Your task to perform on an android device: Clear the cart on bestbuy.com. Add "jbl charge 4" to the cart on bestbuy.com, then select checkout. Image 0: 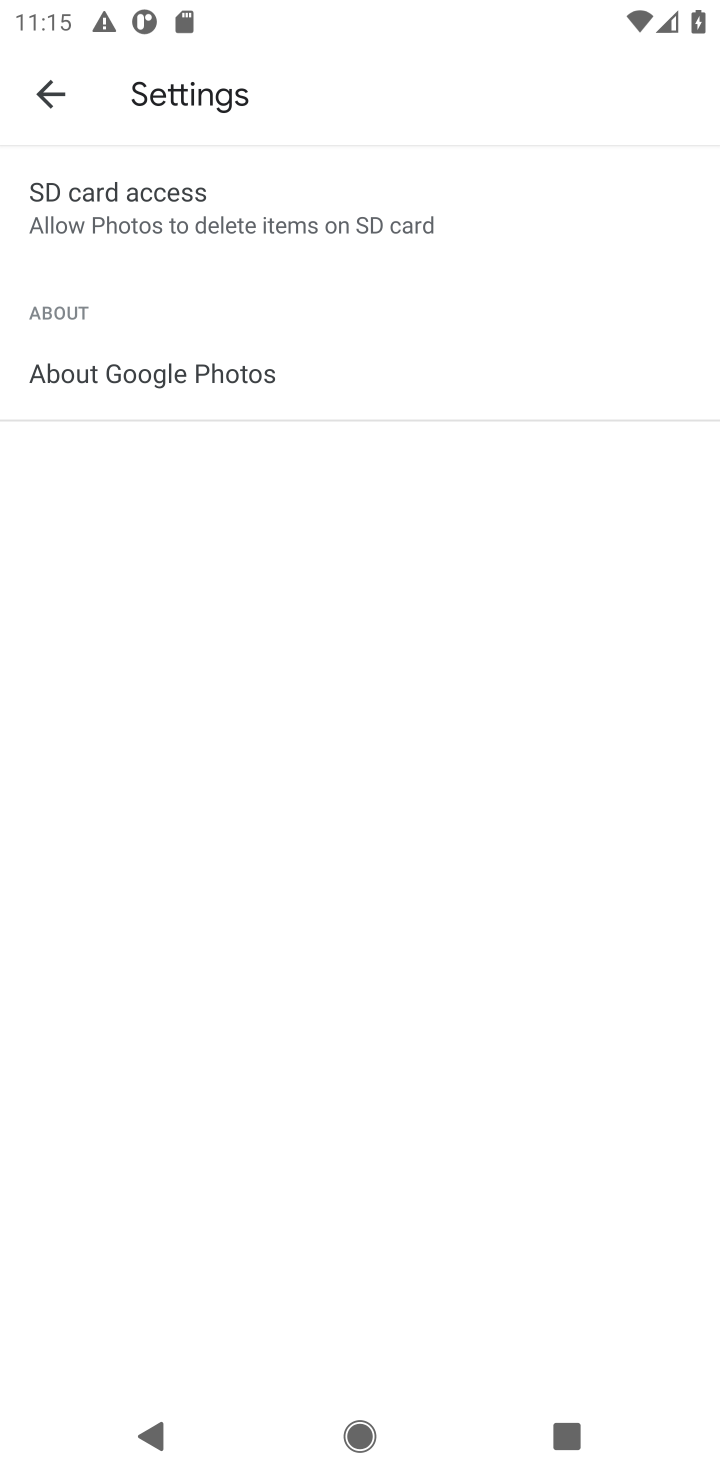
Step 0: press home button
Your task to perform on an android device: Clear the cart on bestbuy.com. Add "jbl charge 4" to the cart on bestbuy.com, then select checkout. Image 1: 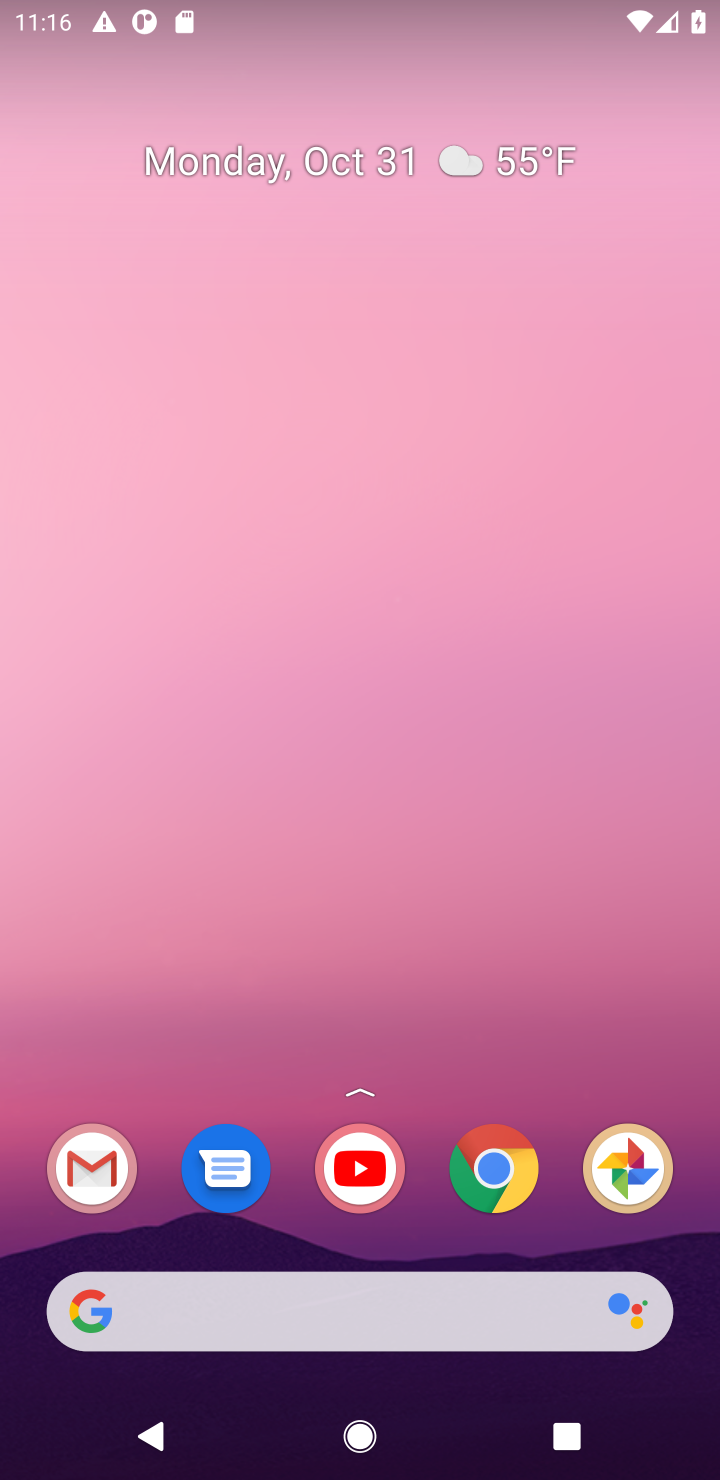
Step 1: click (492, 1175)
Your task to perform on an android device: Clear the cart on bestbuy.com. Add "jbl charge 4" to the cart on bestbuy.com, then select checkout. Image 2: 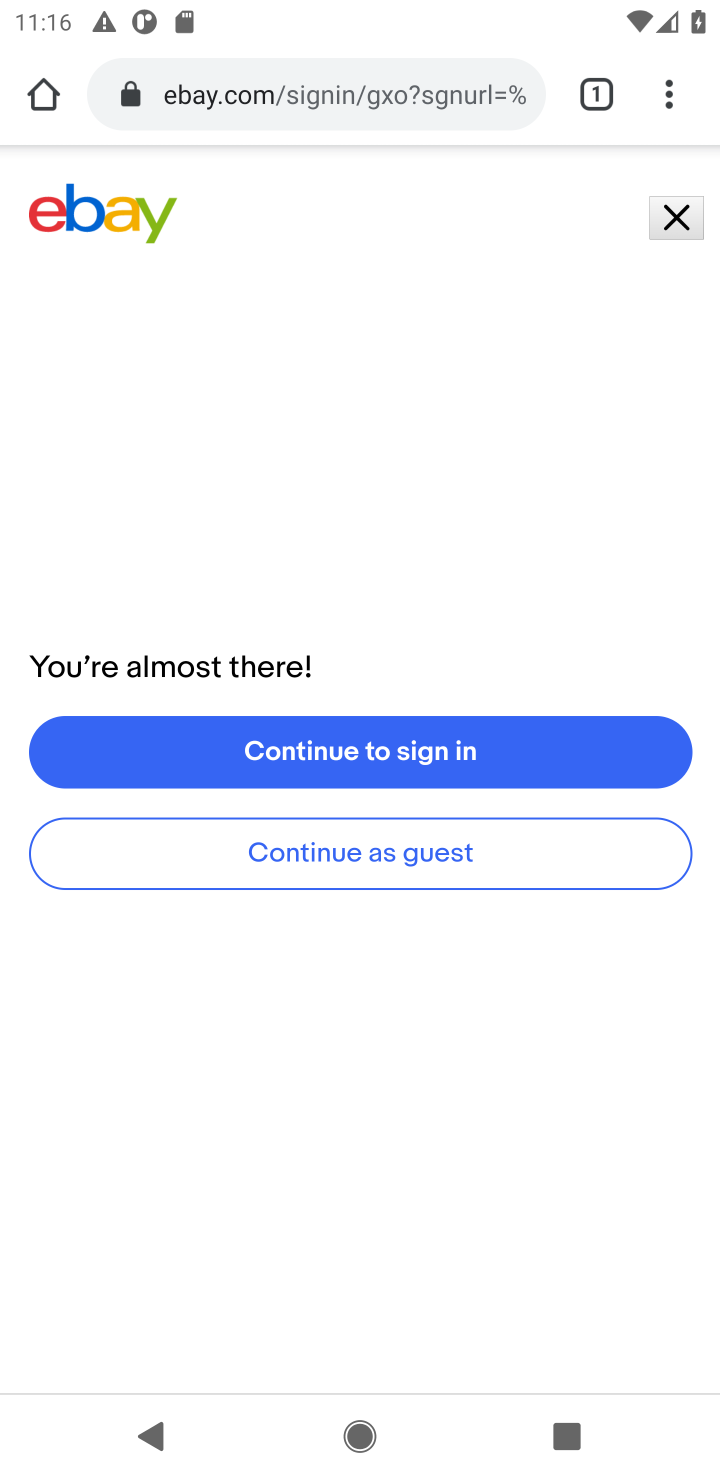
Step 2: click (354, 98)
Your task to perform on an android device: Clear the cart on bestbuy.com. Add "jbl charge 4" to the cart on bestbuy.com, then select checkout. Image 3: 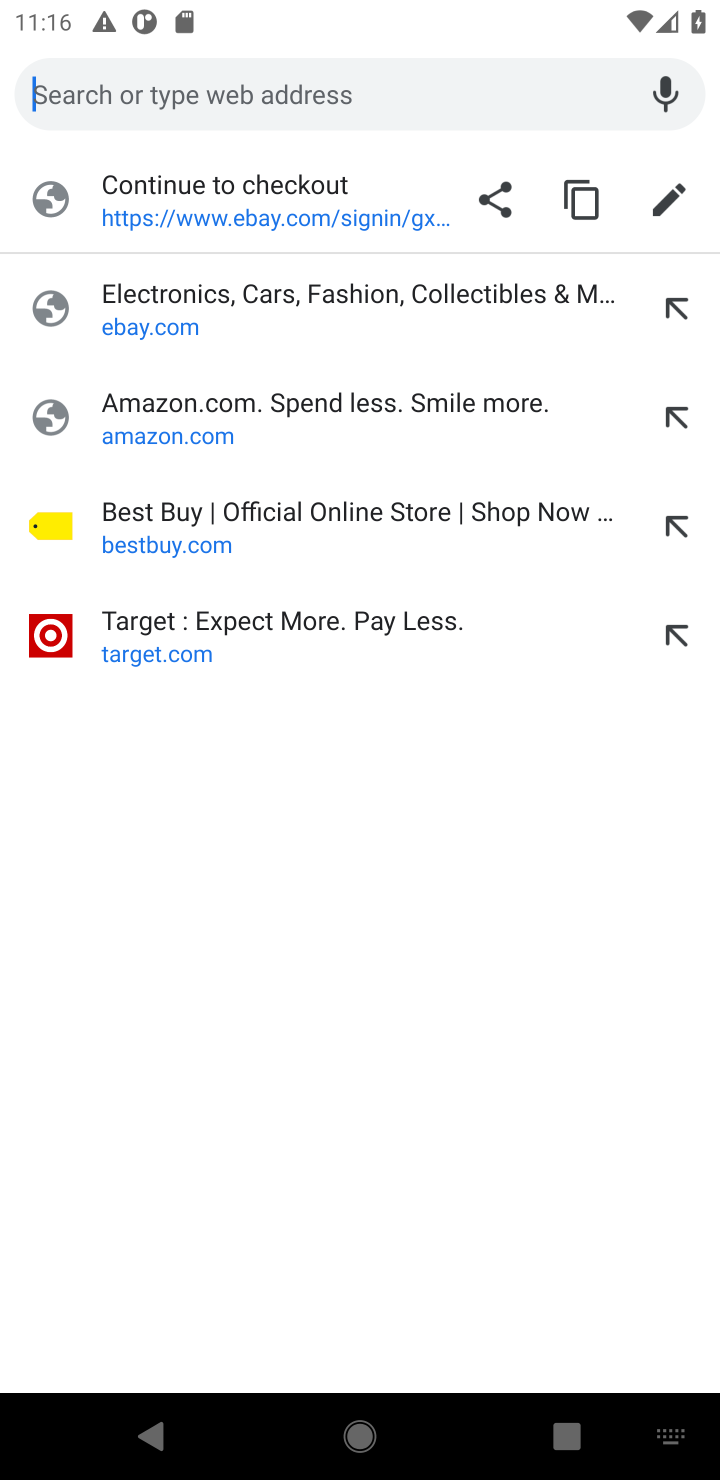
Step 3: type "bestbuy.com"
Your task to perform on an android device: Clear the cart on bestbuy.com. Add "jbl charge 4" to the cart on bestbuy.com, then select checkout. Image 4: 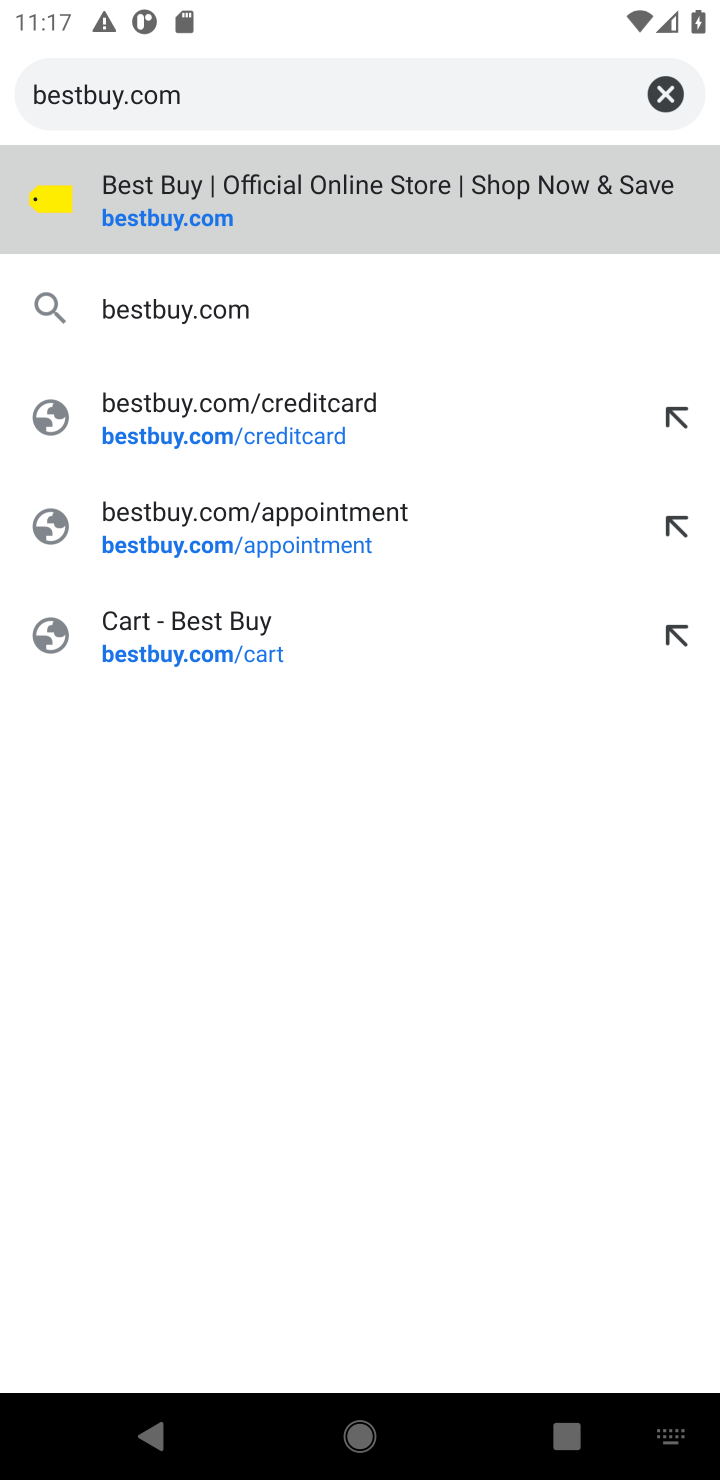
Step 4: press enter
Your task to perform on an android device: Clear the cart on bestbuy.com. Add "jbl charge 4" to the cart on bestbuy.com, then select checkout. Image 5: 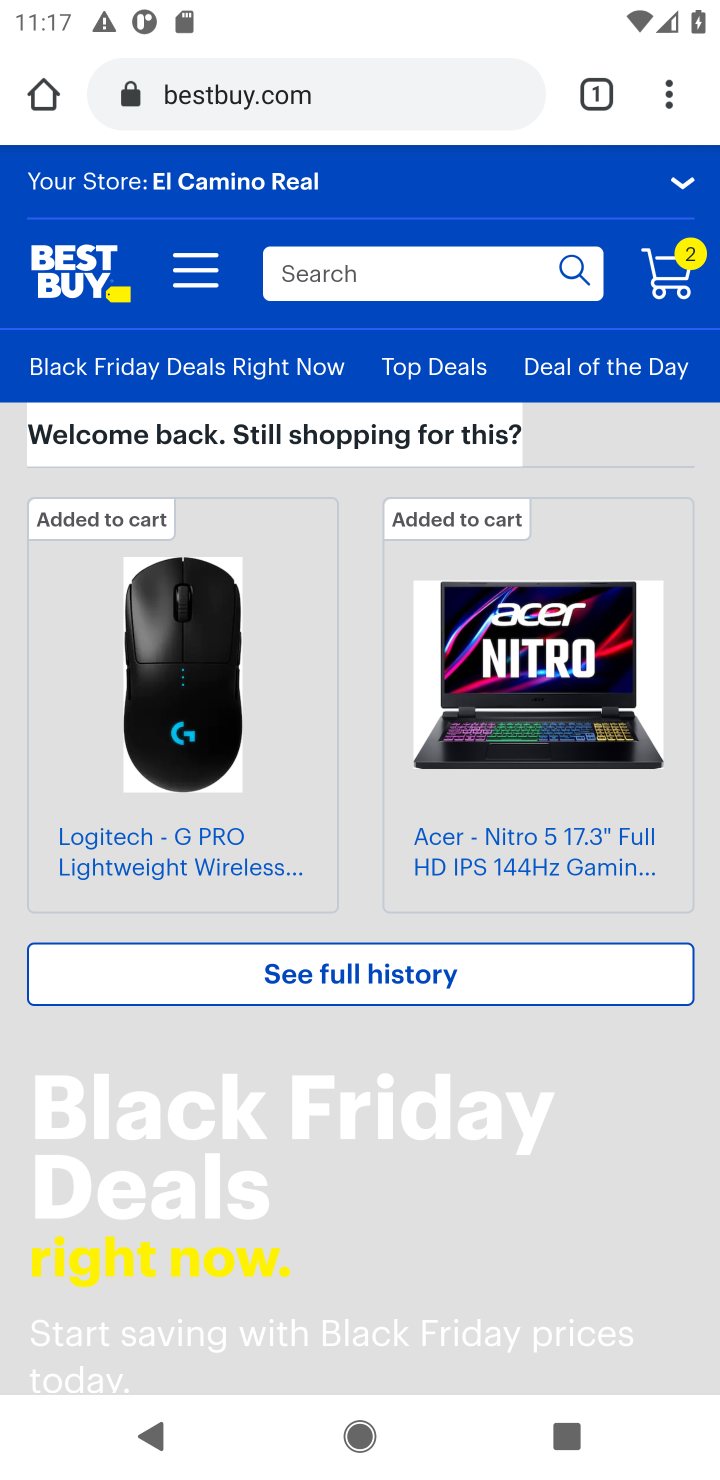
Step 5: click (677, 276)
Your task to perform on an android device: Clear the cart on bestbuy.com. Add "jbl charge 4" to the cart on bestbuy.com, then select checkout. Image 6: 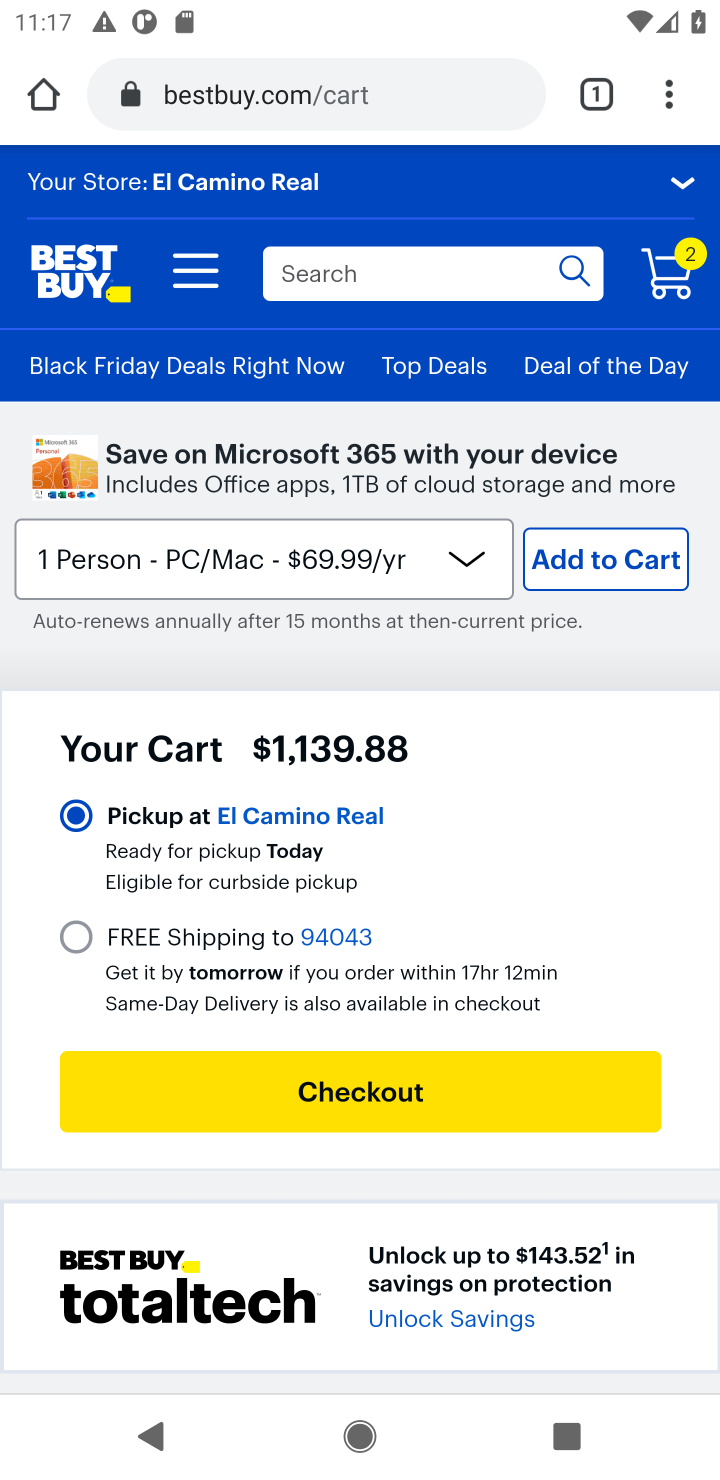
Step 6: drag from (566, 933) to (483, 539)
Your task to perform on an android device: Clear the cart on bestbuy.com. Add "jbl charge 4" to the cart on bestbuy.com, then select checkout. Image 7: 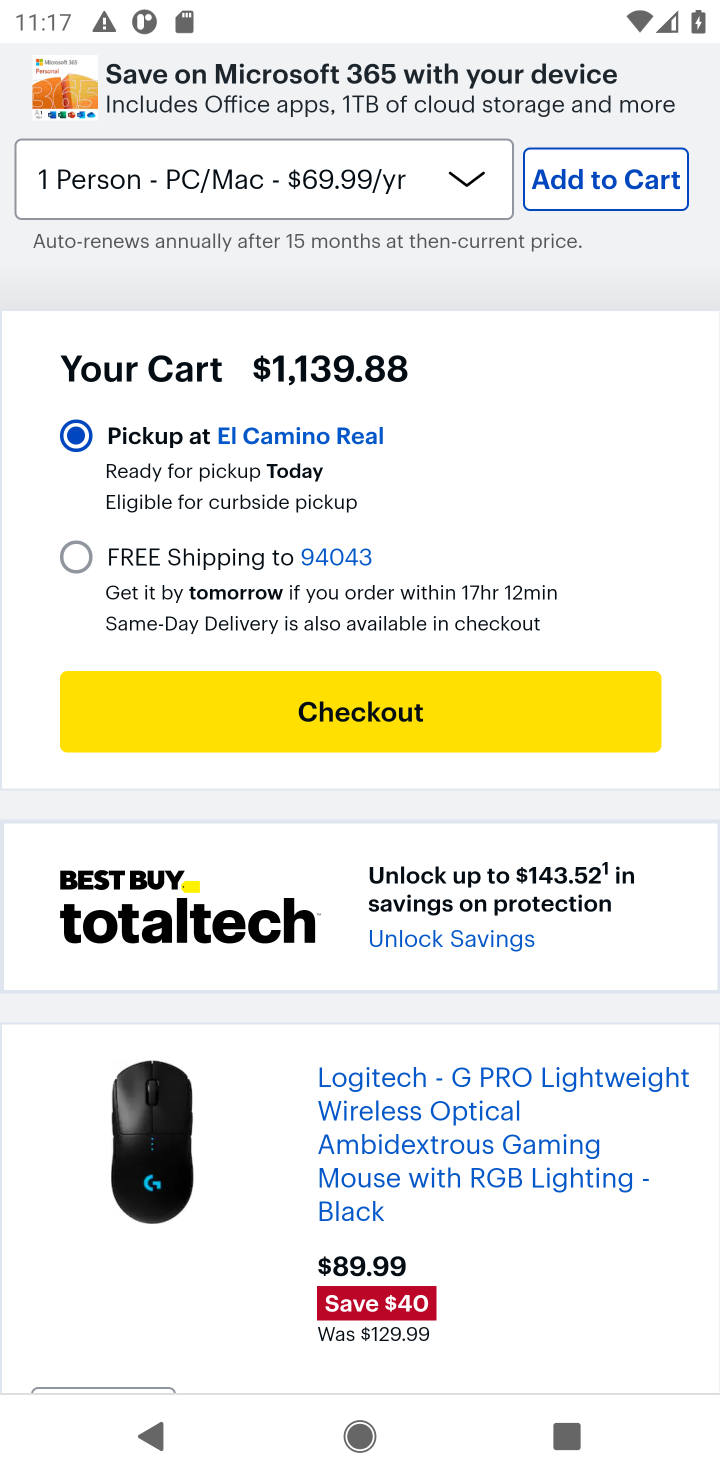
Step 7: drag from (531, 1227) to (523, 628)
Your task to perform on an android device: Clear the cart on bestbuy.com. Add "jbl charge 4" to the cart on bestbuy.com, then select checkout. Image 8: 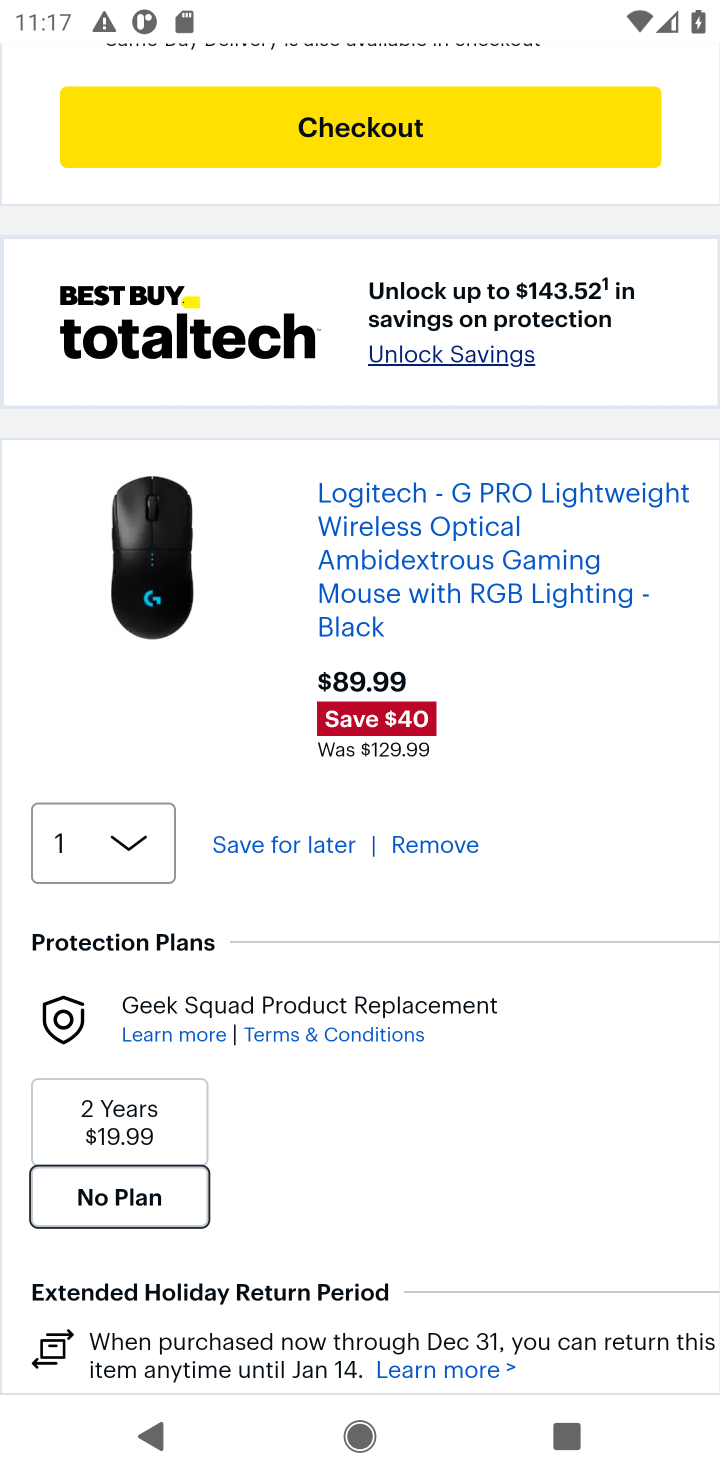
Step 8: click (432, 838)
Your task to perform on an android device: Clear the cart on bestbuy.com. Add "jbl charge 4" to the cart on bestbuy.com, then select checkout. Image 9: 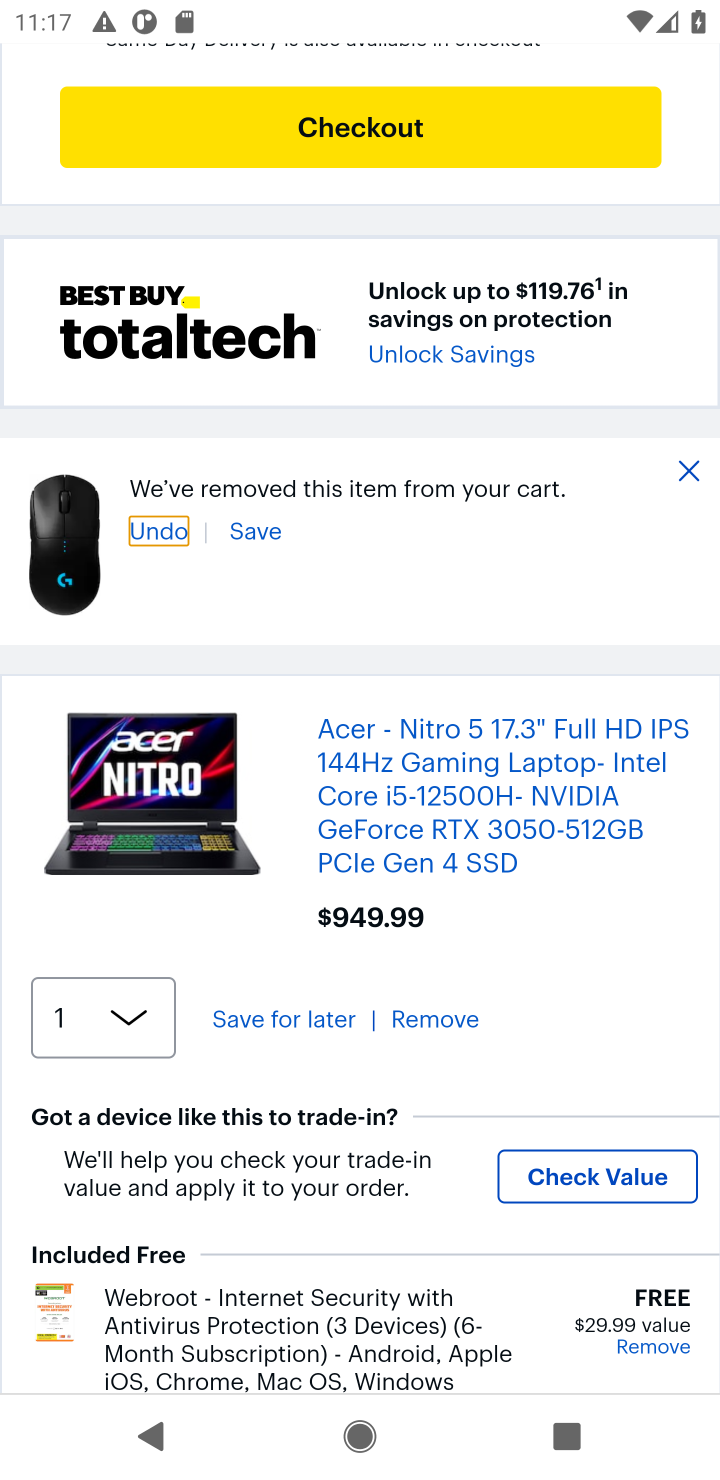
Step 9: click (413, 1026)
Your task to perform on an android device: Clear the cart on bestbuy.com. Add "jbl charge 4" to the cart on bestbuy.com, then select checkout. Image 10: 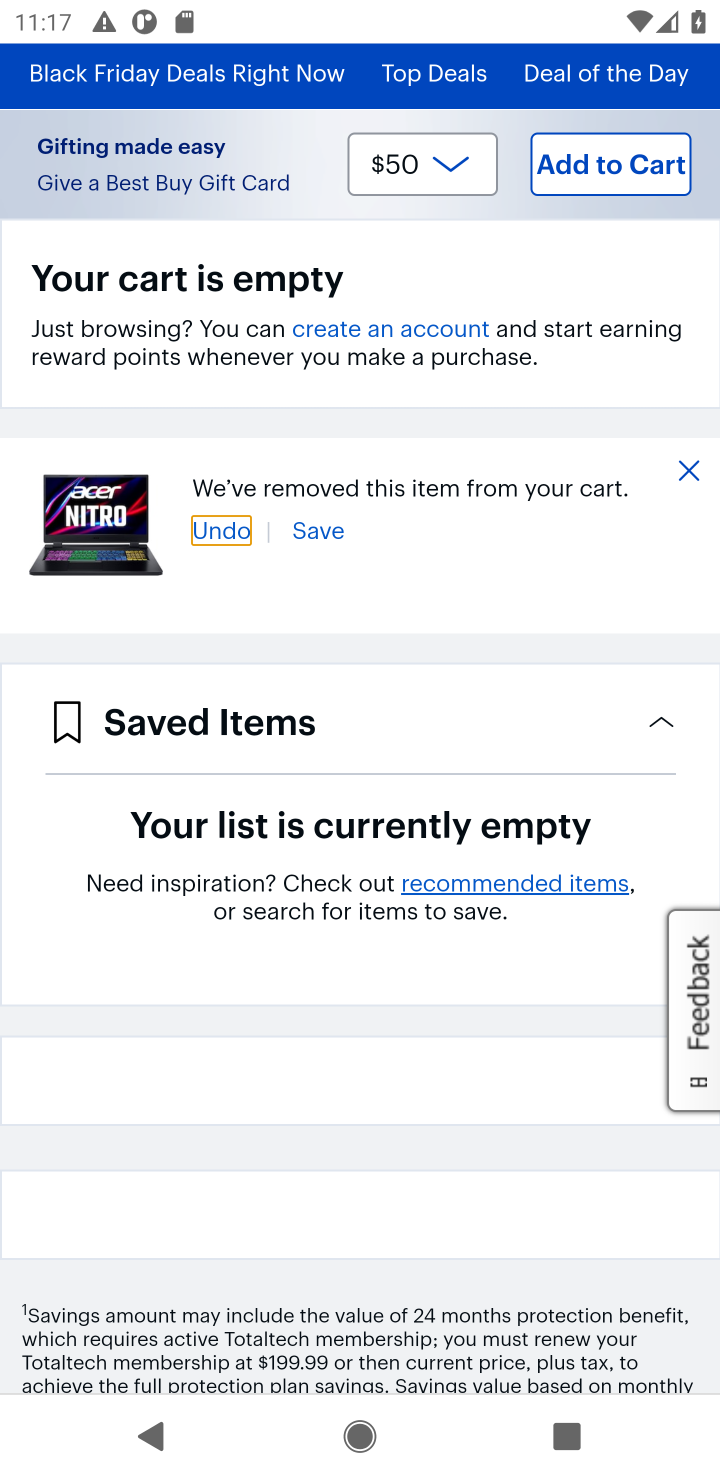
Step 10: click (691, 466)
Your task to perform on an android device: Clear the cart on bestbuy.com. Add "jbl charge 4" to the cart on bestbuy.com, then select checkout. Image 11: 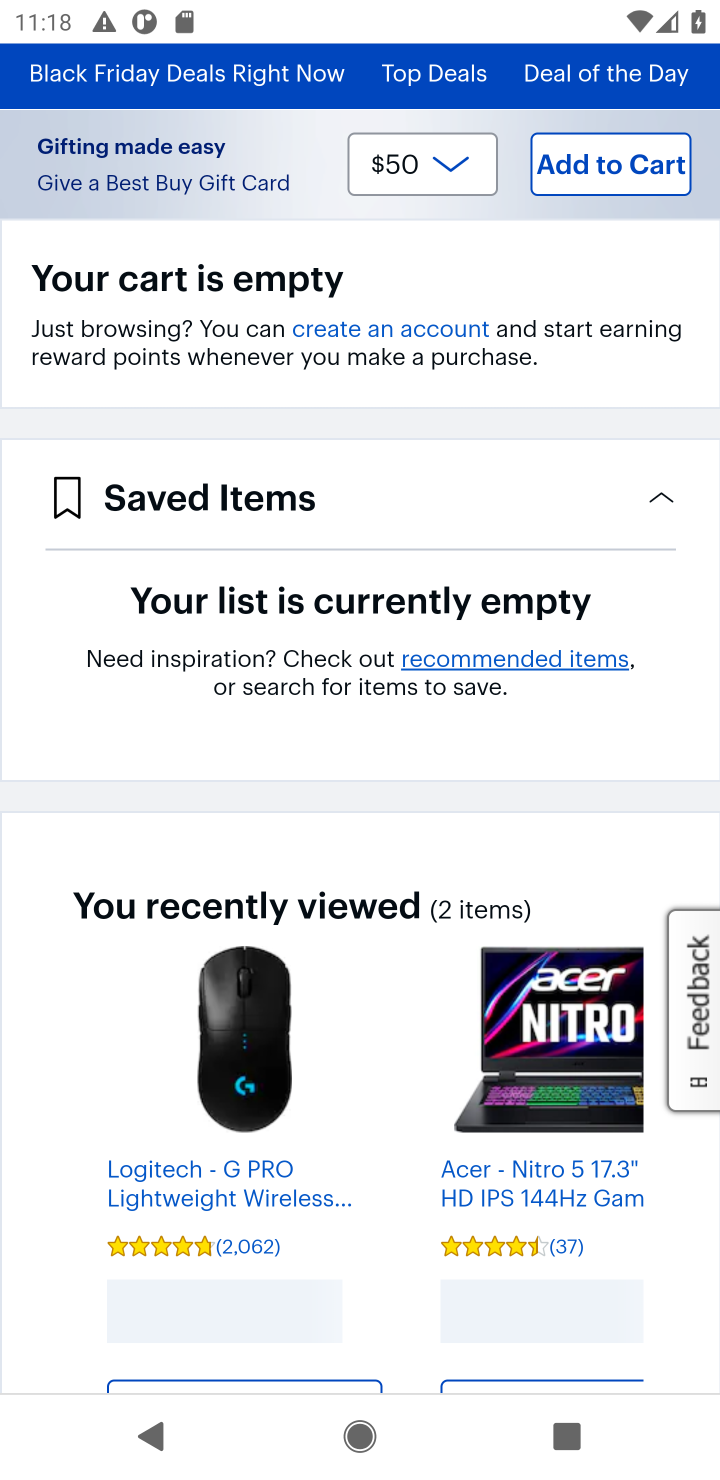
Step 11: drag from (403, 665) to (461, 998)
Your task to perform on an android device: Clear the cart on bestbuy.com. Add "jbl charge 4" to the cart on bestbuy.com, then select checkout. Image 12: 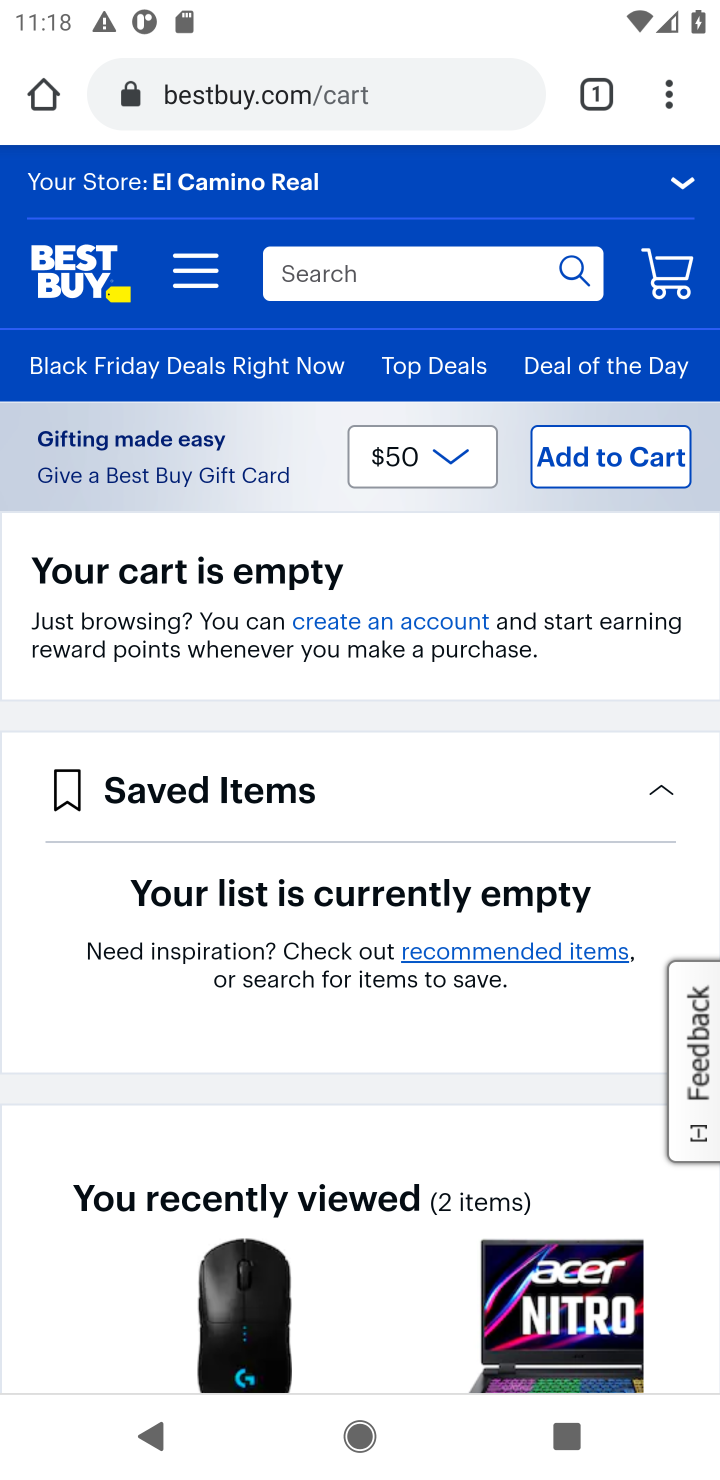
Step 12: click (408, 269)
Your task to perform on an android device: Clear the cart on bestbuy.com. Add "jbl charge 4" to the cart on bestbuy.com, then select checkout. Image 13: 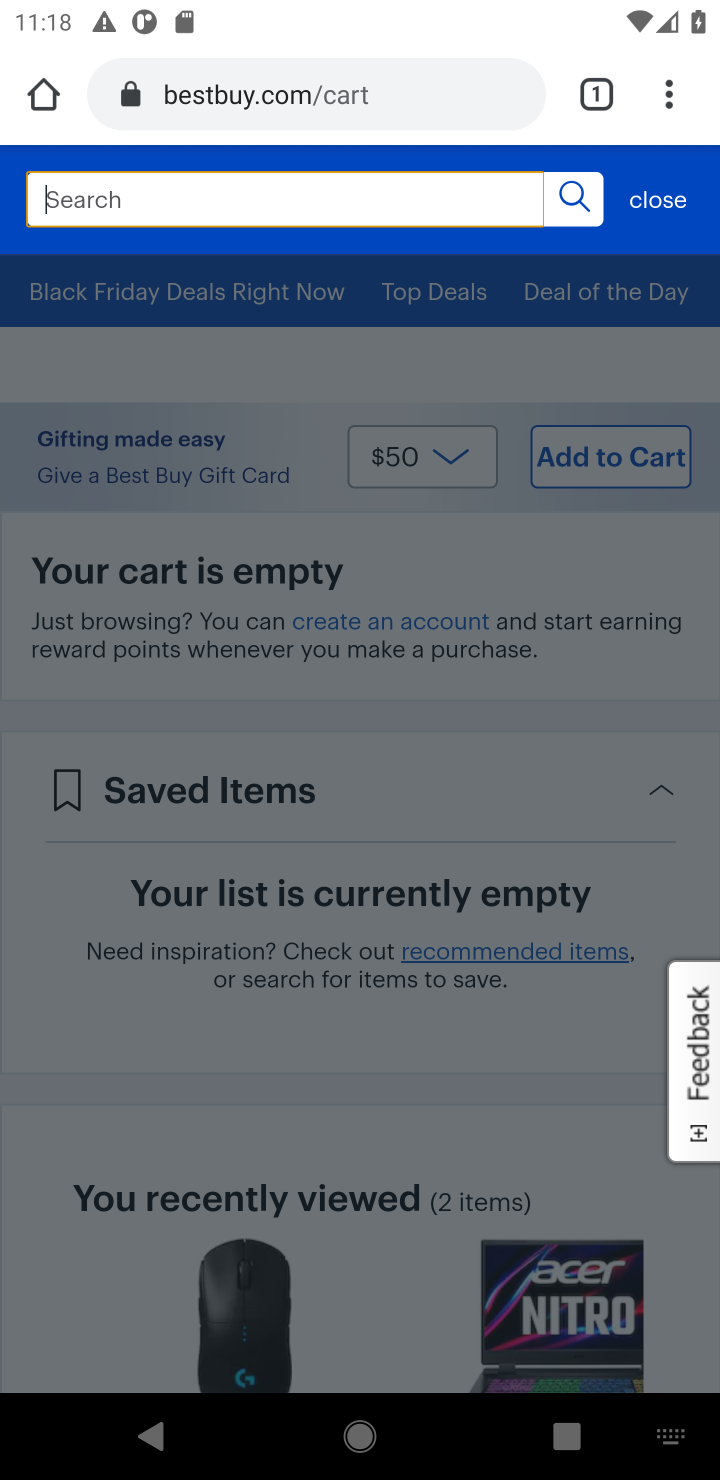
Step 13: type "jbl charger 4"
Your task to perform on an android device: Clear the cart on bestbuy.com. Add "jbl charge 4" to the cart on bestbuy.com, then select checkout. Image 14: 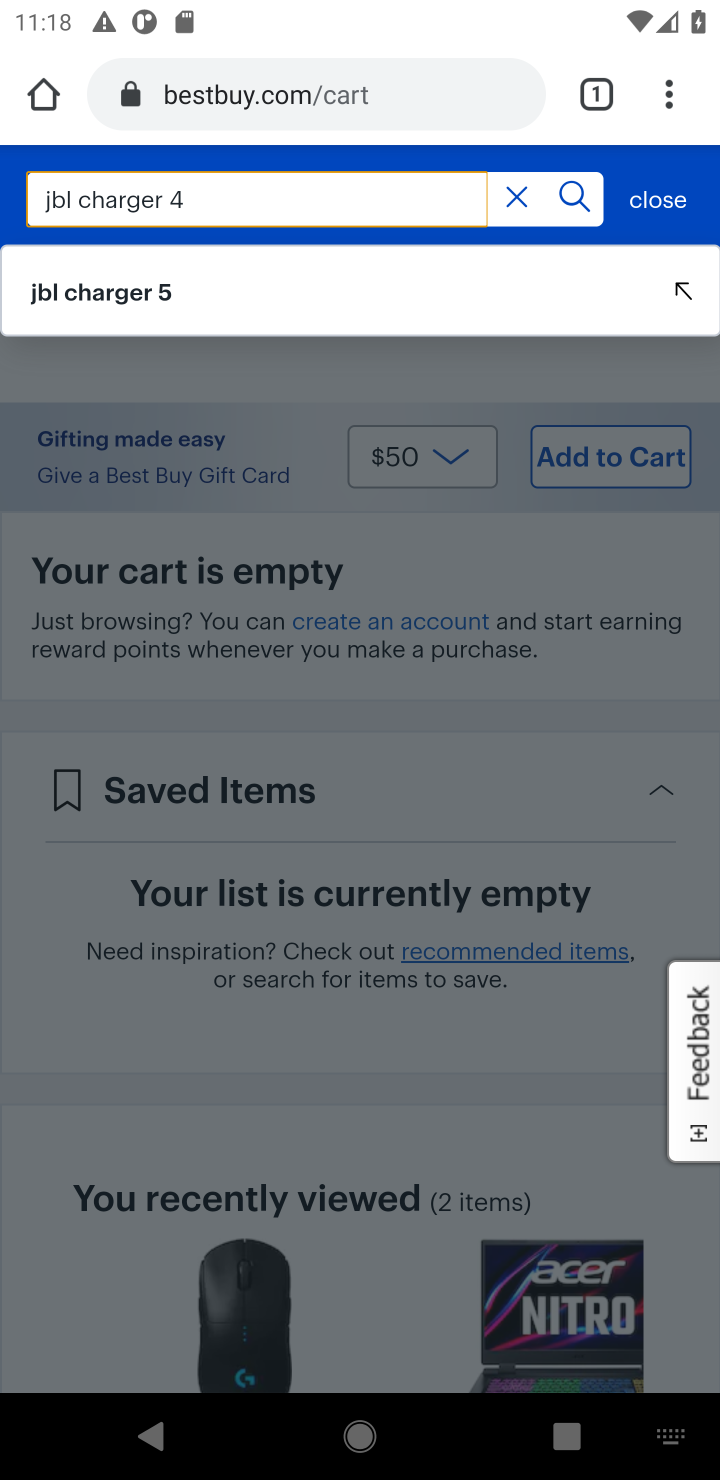
Step 14: press enter
Your task to perform on an android device: Clear the cart on bestbuy.com. Add "jbl charge 4" to the cart on bestbuy.com, then select checkout. Image 15: 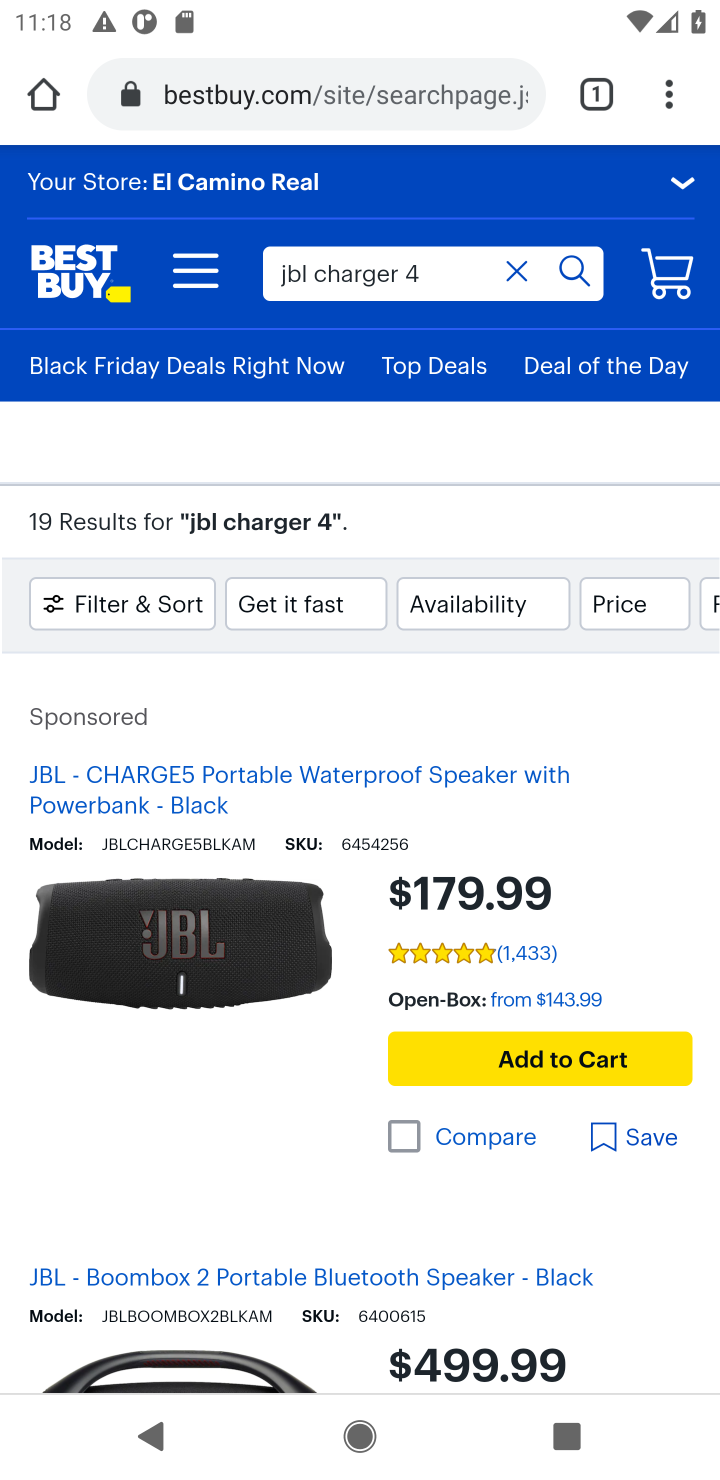
Step 15: drag from (666, 1068) to (636, 846)
Your task to perform on an android device: Clear the cart on bestbuy.com. Add "jbl charge 4" to the cart on bestbuy.com, then select checkout. Image 16: 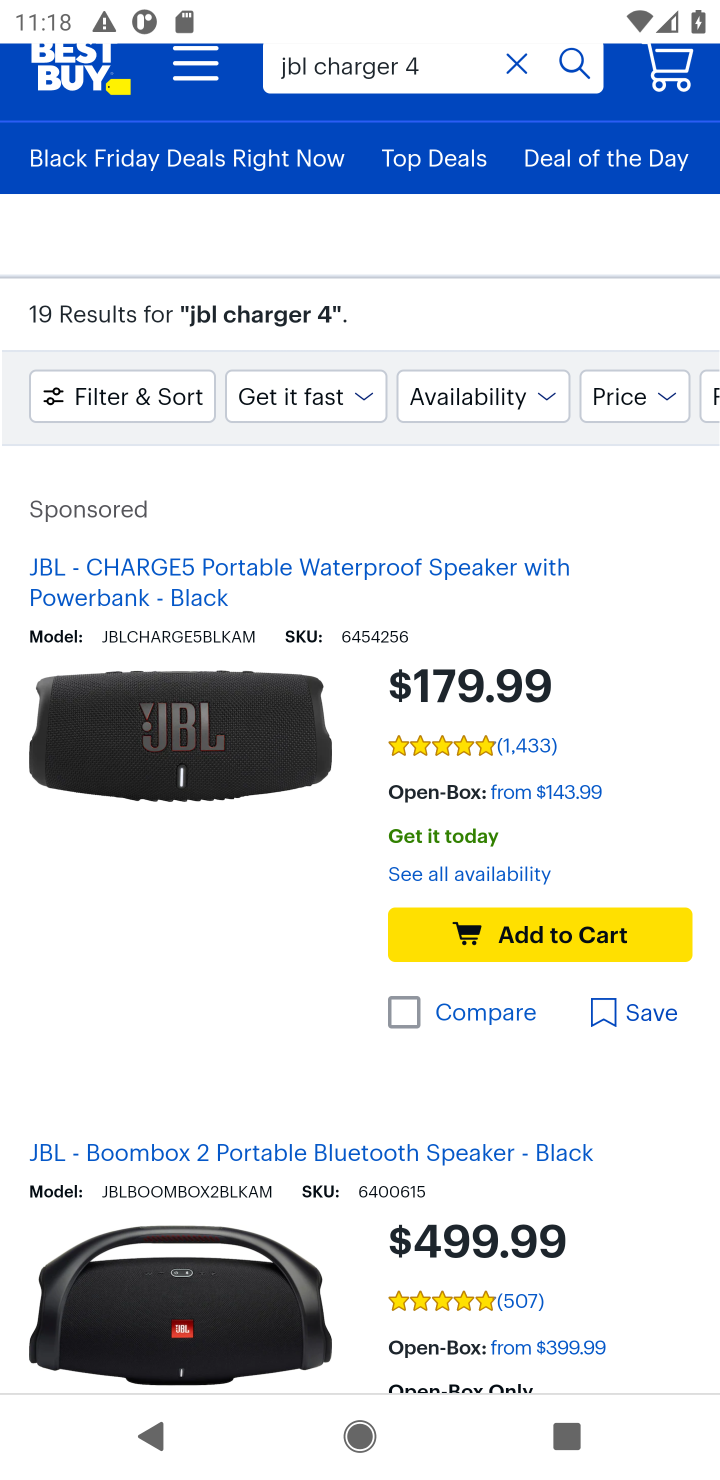
Step 16: drag from (650, 1226) to (633, 322)
Your task to perform on an android device: Clear the cart on bestbuy.com. Add "jbl charge 4" to the cart on bestbuy.com, then select checkout. Image 17: 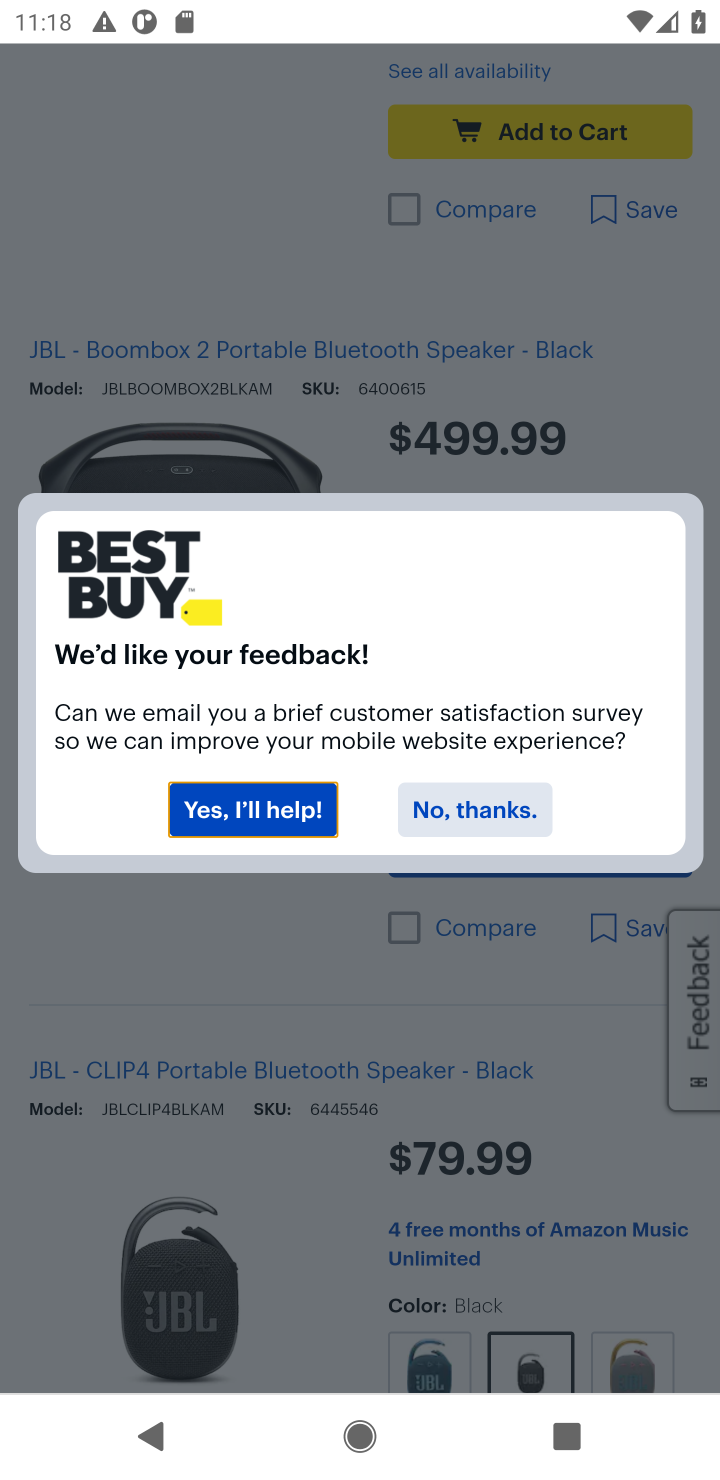
Step 17: click (494, 805)
Your task to perform on an android device: Clear the cart on bestbuy.com. Add "jbl charge 4" to the cart on bestbuy.com, then select checkout. Image 18: 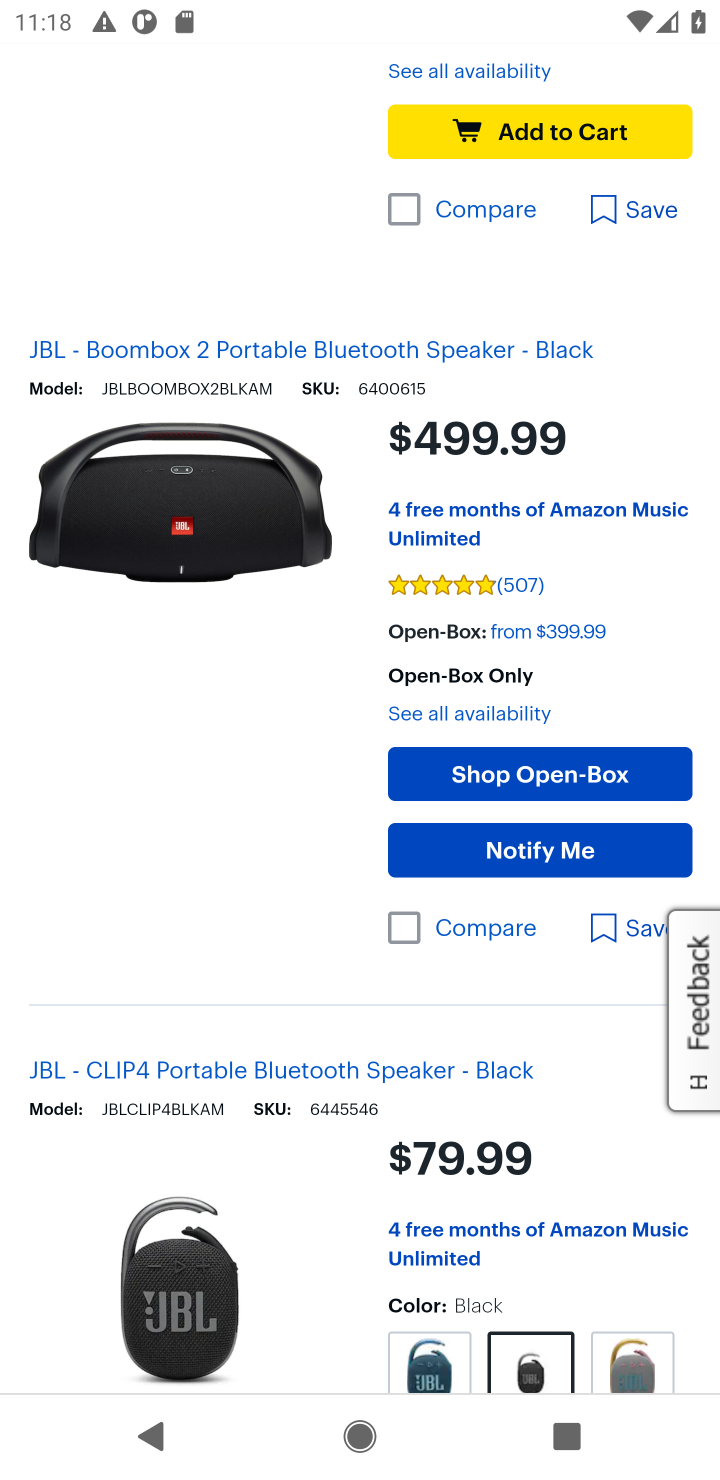
Step 18: task complete